Your task to perform on an android device: Set the phone to "Do not disturb". Image 0: 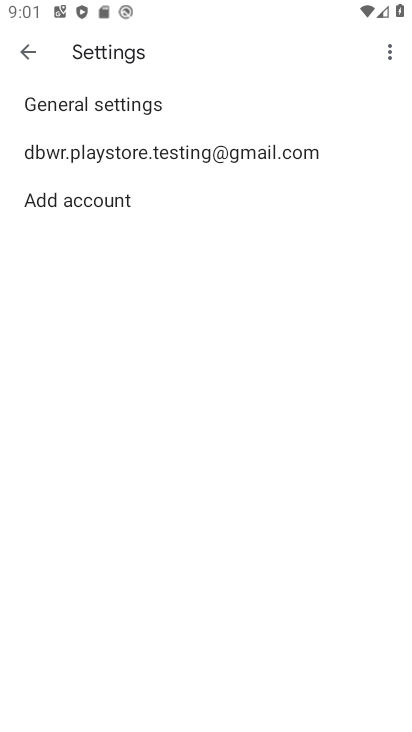
Step 0: press home button
Your task to perform on an android device: Set the phone to "Do not disturb". Image 1: 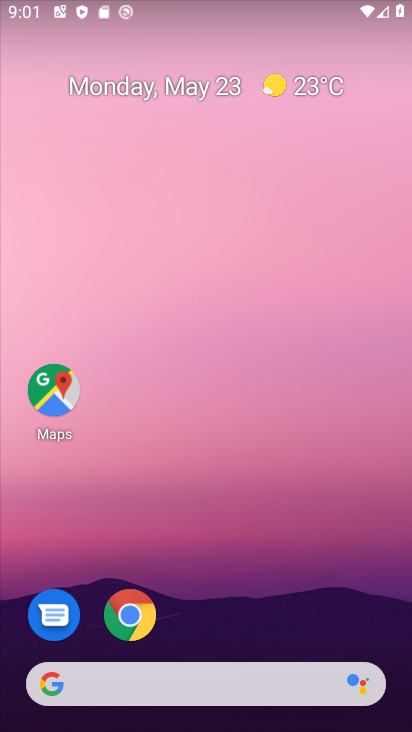
Step 1: drag from (273, 583) to (152, 106)
Your task to perform on an android device: Set the phone to "Do not disturb". Image 2: 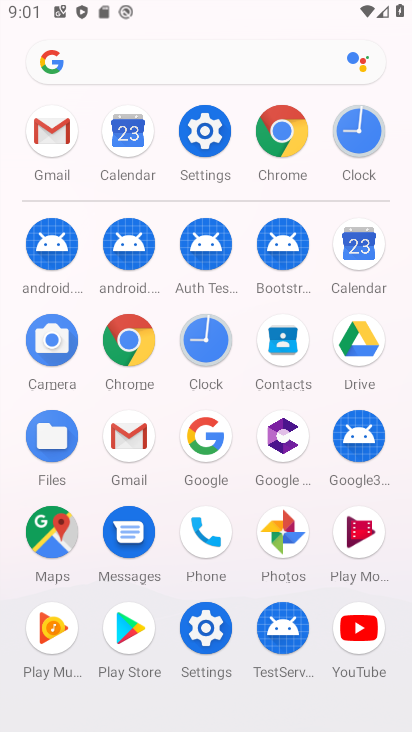
Step 2: click (207, 132)
Your task to perform on an android device: Set the phone to "Do not disturb". Image 3: 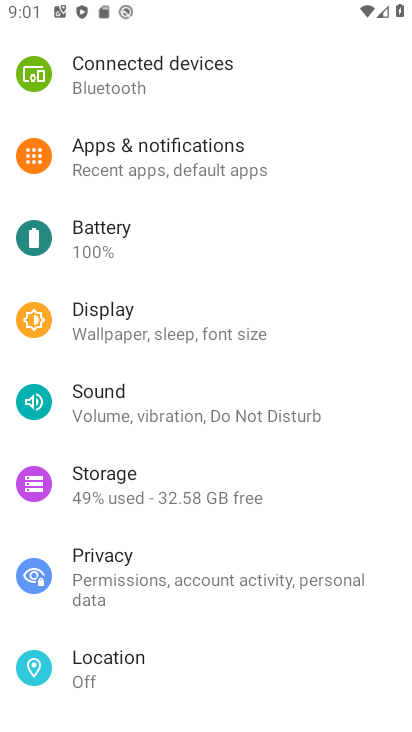
Step 3: drag from (186, 261) to (201, 347)
Your task to perform on an android device: Set the phone to "Do not disturb". Image 4: 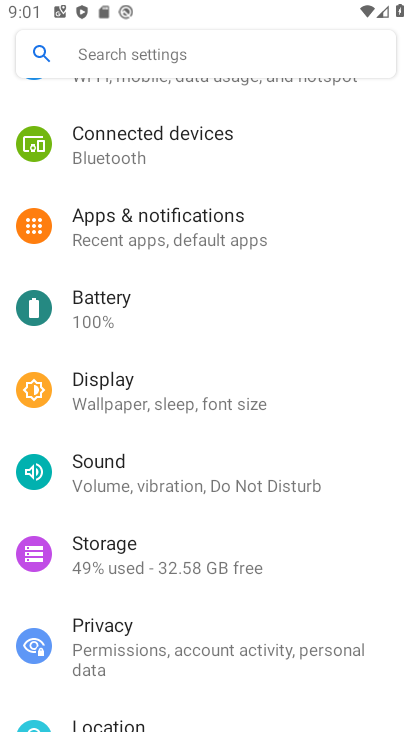
Step 4: drag from (159, 296) to (208, 386)
Your task to perform on an android device: Set the phone to "Do not disturb". Image 5: 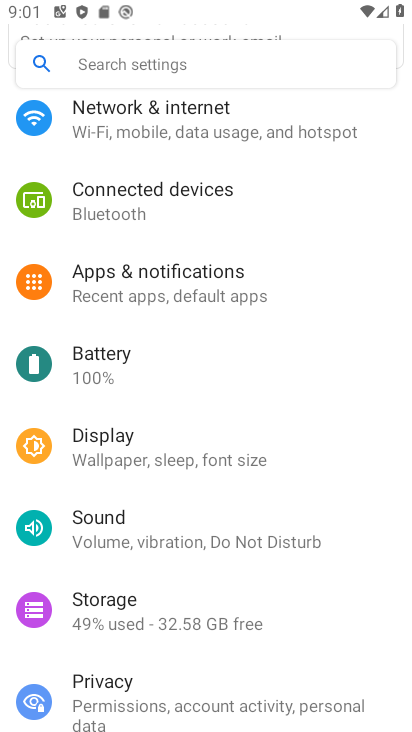
Step 5: drag from (231, 228) to (241, 318)
Your task to perform on an android device: Set the phone to "Do not disturb". Image 6: 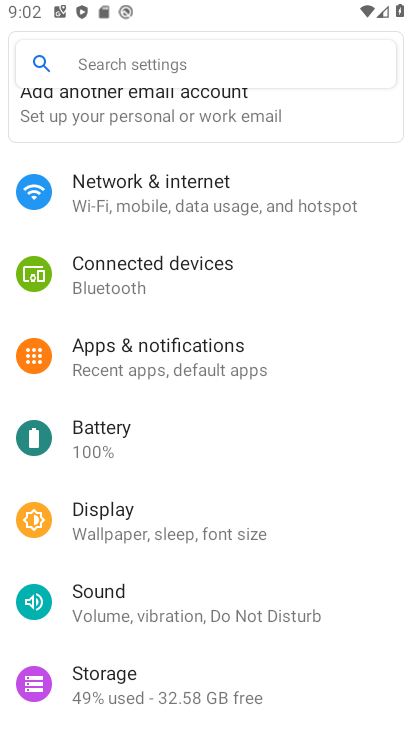
Step 6: drag from (186, 473) to (220, 405)
Your task to perform on an android device: Set the phone to "Do not disturb". Image 7: 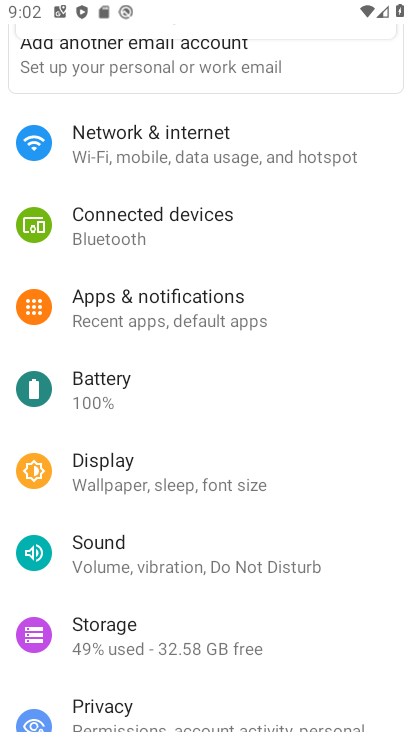
Step 7: click (237, 563)
Your task to perform on an android device: Set the phone to "Do not disturb". Image 8: 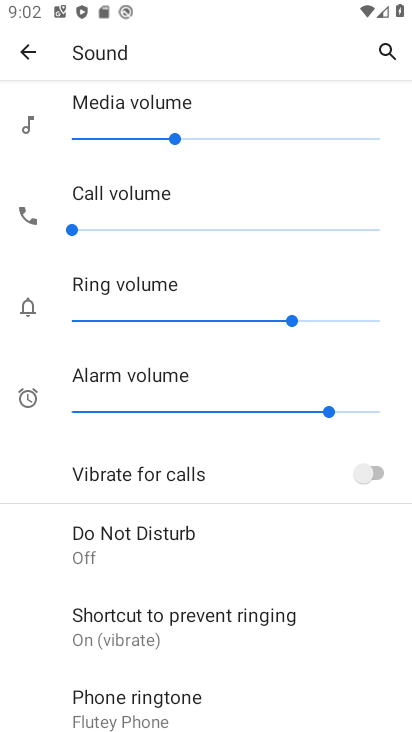
Step 8: click (139, 545)
Your task to perform on an android device: Set the phone to "Do not disturb". Image 9: 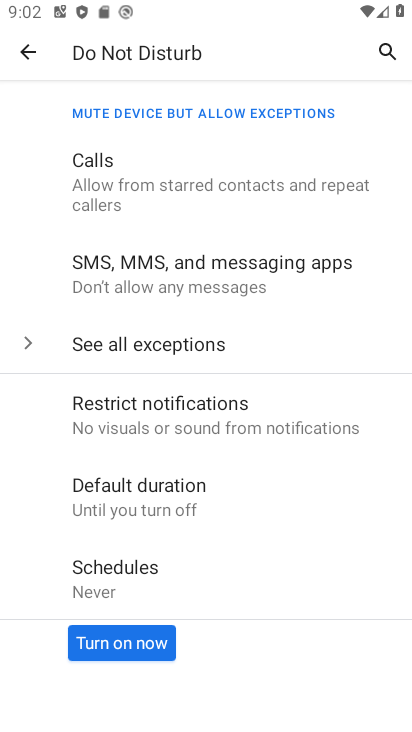
Step 9: click (105, 645)
Your task to perform on an android device: Set the phone to "Do not disturb". Image 10: 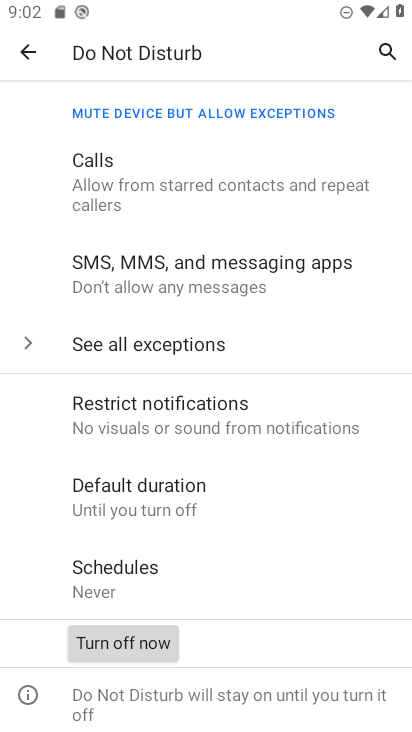
Step 10: task complete